Your task to perform on an android device: Open calendar and show me the second week of next month Image 0: 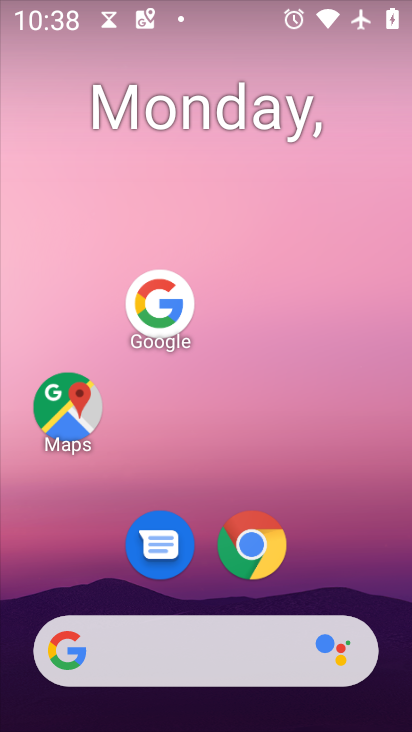
Step 0: press home button
Your task to perform on an android device: Open calendar and show me the second week of next month Image 1: 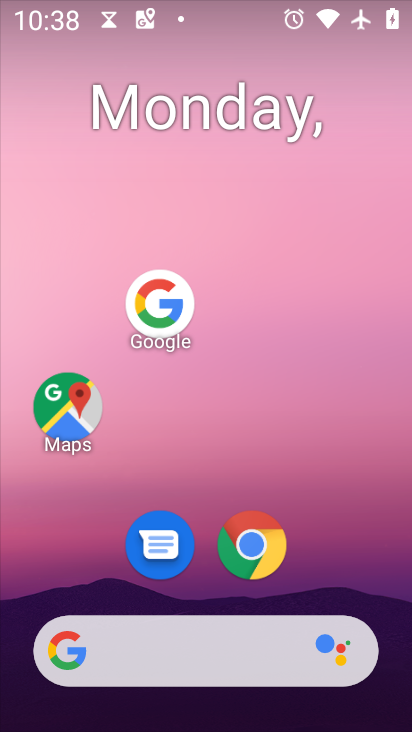
Step 1: drag from (161, 656) to (306, 186)
Your task to perform on an android device: Open calendar and show me the second week of next month Image 2: 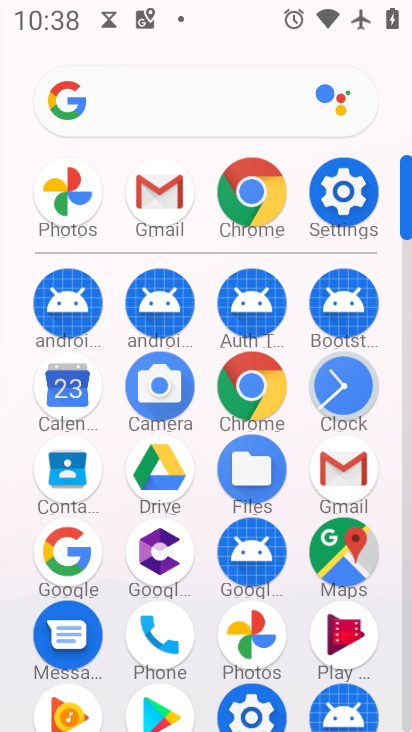
Step 2: click (74, 388)
Your task to perform on an android device: Open calendar and show me the second week of next month Image 3: 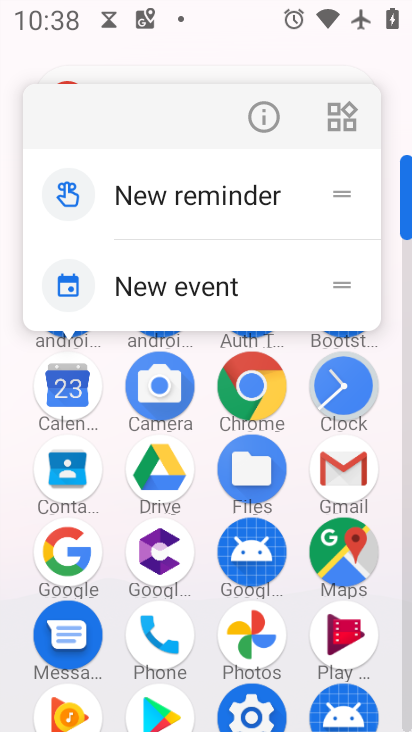
Step 3: click (71, 399)
Your task to perform on an android device: Open calendar and show me the second week of next month Image 4: 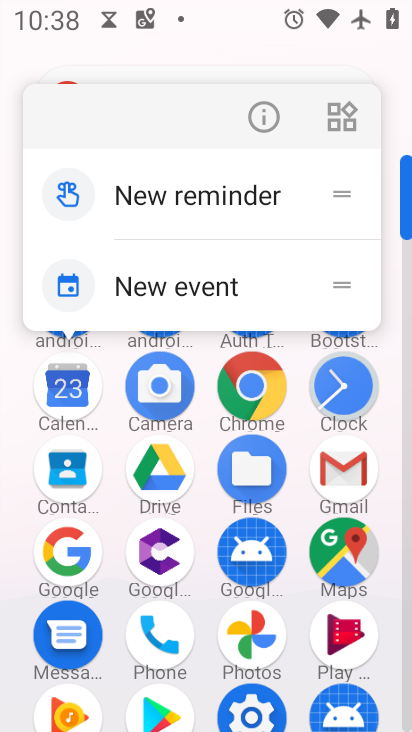
Step 4: click (71, 399)
Your task to perform on an android device: Open calendar and show me the second week of next month Image 5: 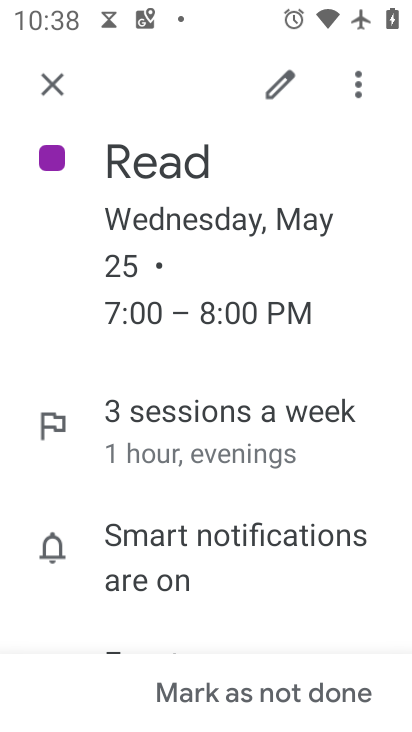
Step 5: click (50, 78)
Your task to perform on an android device: Open calendar and show me the second week of next month Image 6: 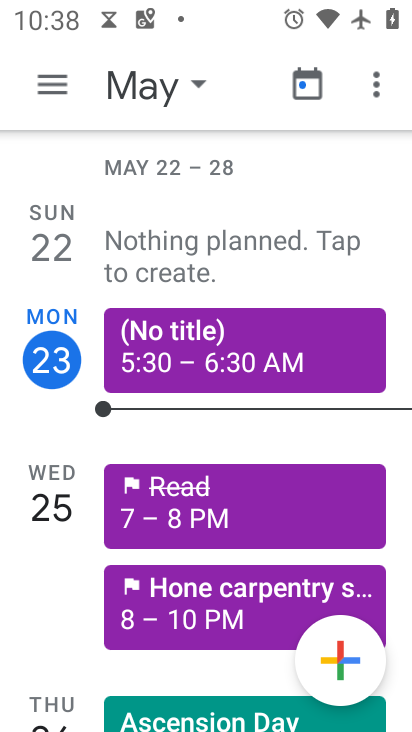
Step 6: click (143, 88)
Your task to perform on an android device: Open calendar and show me the second week of next month Image 7: 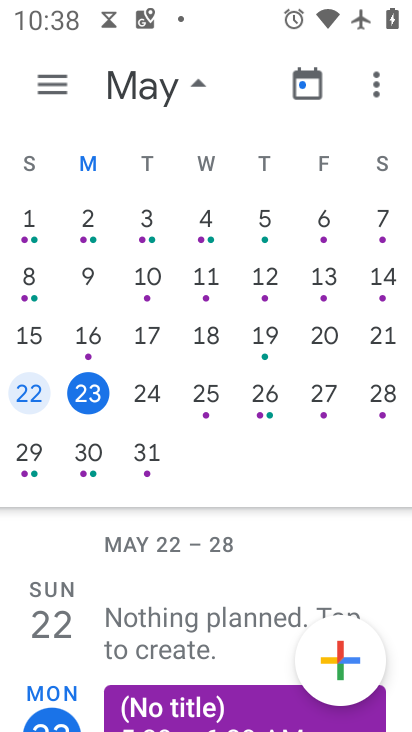
Step 7: drag from (375, 368) to (7, 319)
Your task to perform on an android device: Open calendar and show me the second week of next month Image 8: 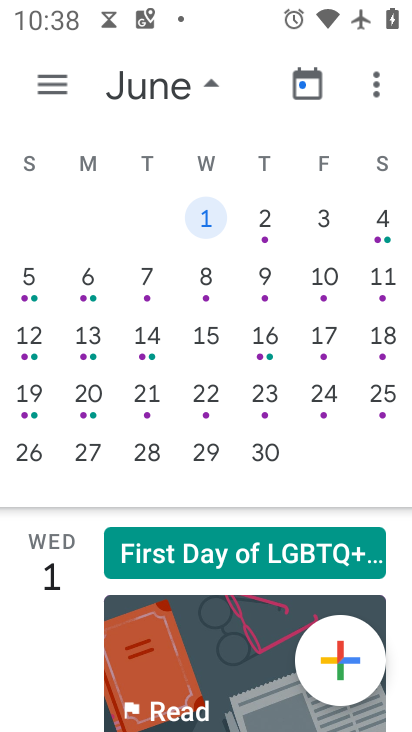
Step 8: click (23, 282)
Your task to perform on an android device: Open calendar and show me the second week of next month Image 9: 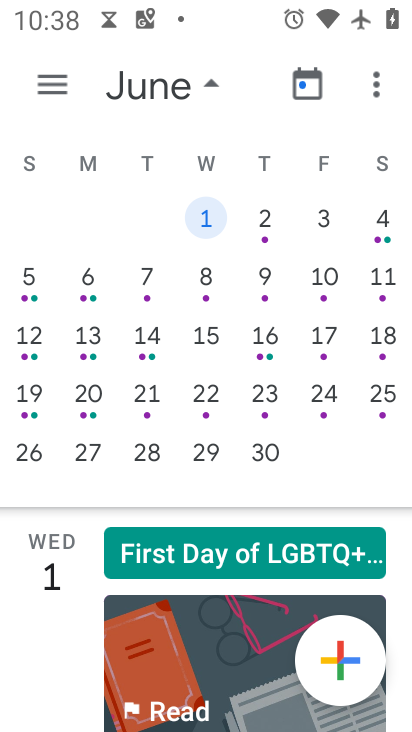
Step 9: click (31, 278)
Your task to perform on an android device: Open calendar and show me the second week of next month Image 10: 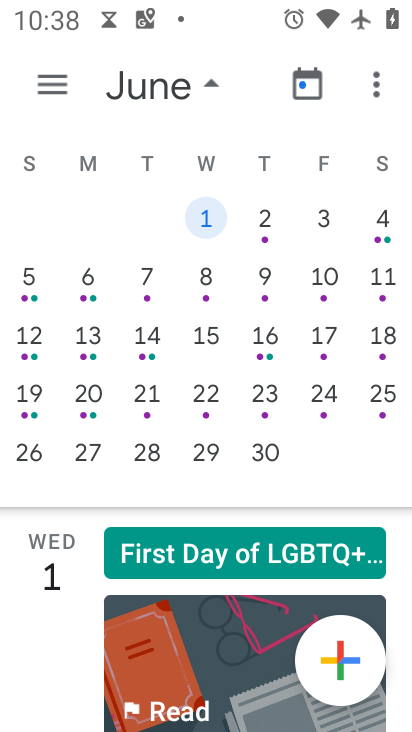
Step 10: click (38, 275)
Your task to perform on an android device: Open calendar and show me the second week of next month Image 11: 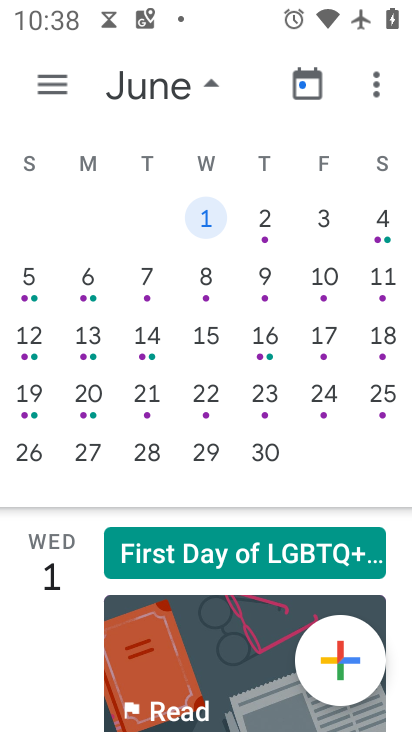
Step 11: click (33, 281)
Your task to perform on an android device: Open calendar and show me the second week of next month Image 12: 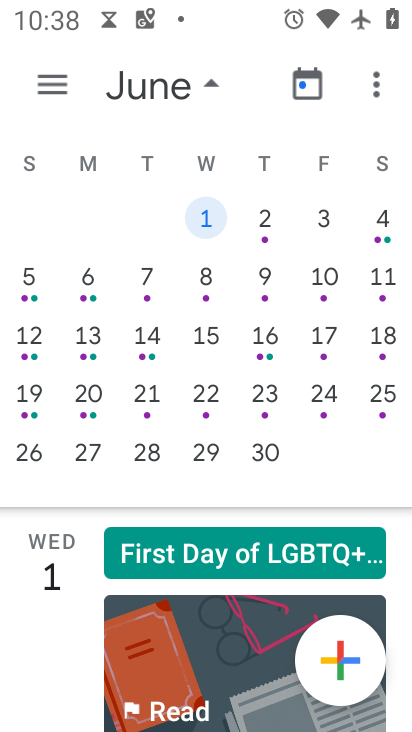
Step 12: click (36, 278)
Your task to perform on an android device: Open calendar and show me the second week of next month Image 13: 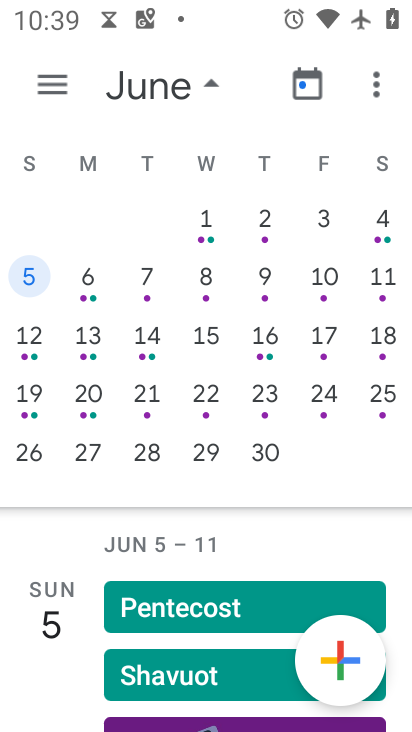
Step 13: click (53, 84)
Your task to perform on an android device: Open calendar and show me the second week of next month Image 14: 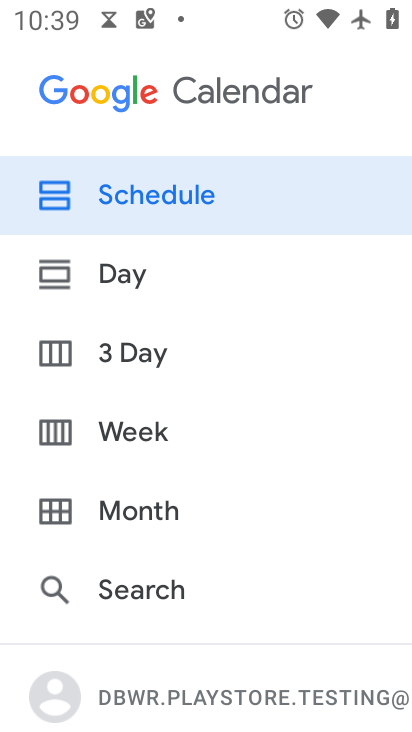
Step 14: click (148, 434)
Your task to perform on an android device: Open calendar and show me the second week of next month Image 15: 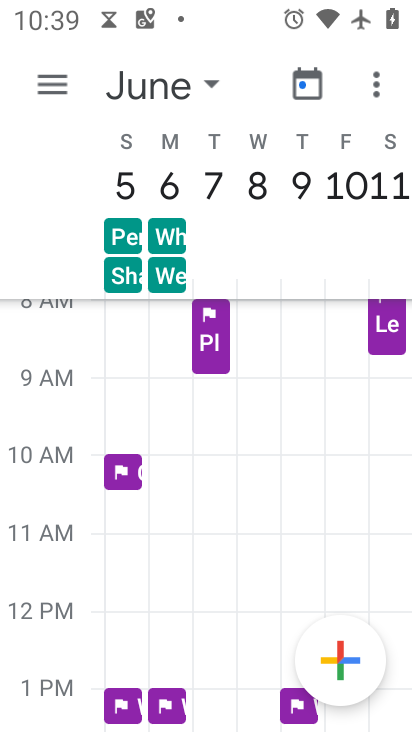
Step 15: task complete